Your task to perform on an android device: turn on sleep mode Image 0: 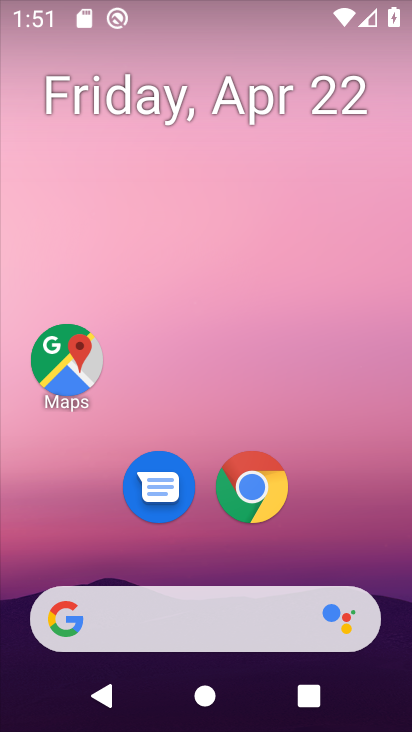
Step 0: drag from (204, 609) to (373, 0)
Your task to perform on an android device: turn on sleep mode Image 1: 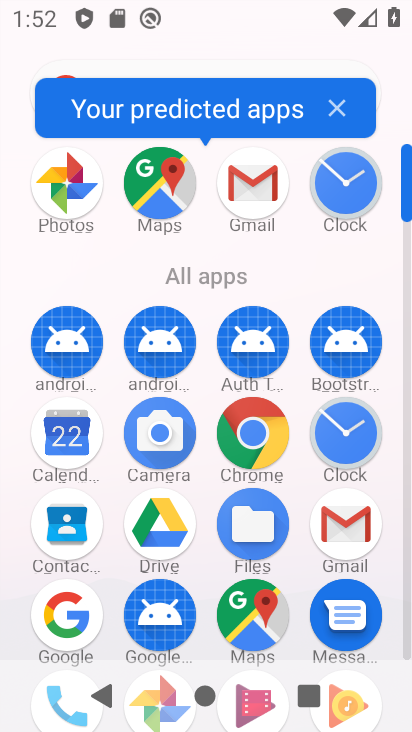
Step 1: drag from (190, 555) to (364, 151)
Your task to perform on an android device: turn on sleep mode Image 2: 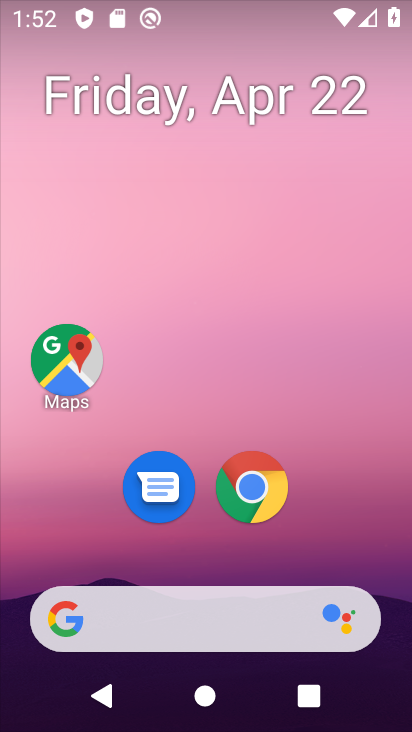
Step 2: drag from (216, 554) to (357, 47)
Your task to perform on an android device: turn on sleep mode Image 3: 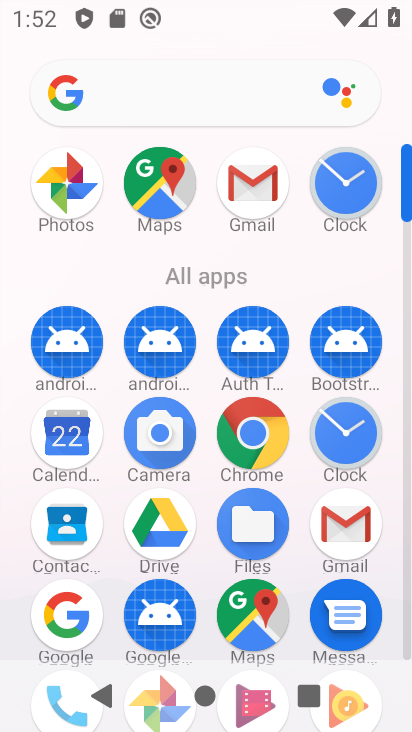
Step 3: drag from (113, 576) to (239, 215)
Your task to perform on an android device: turn on sleep mode Image 4: 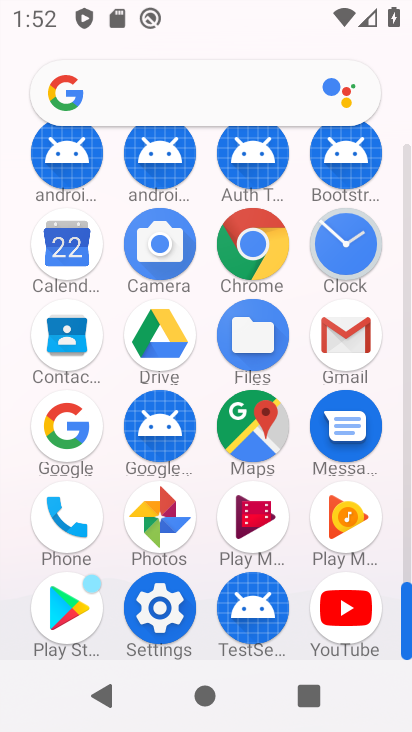
Step 4: click (153, 598)
Your task to perform on an android device: turn on sleep mode Image 5: 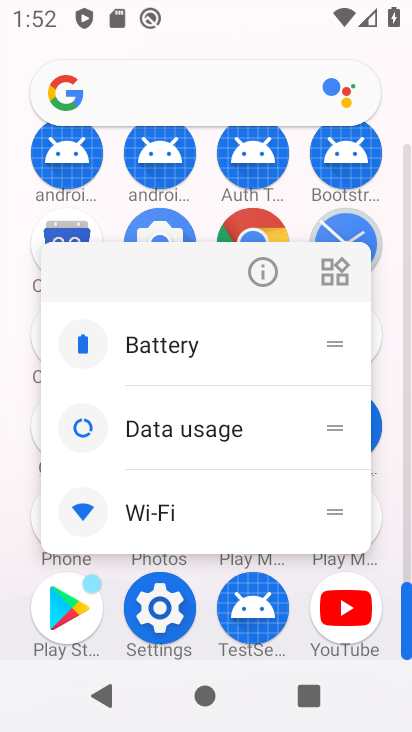
Step 5: click (158, 605)
Your task to perform on an android device: turn on sleep mode Image 6: 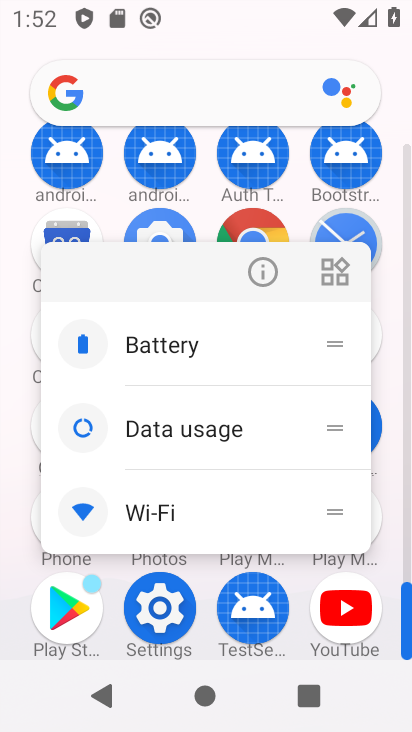
Step 6: click (158, 608)
Your task to perform on an android device: turn on sleep mode Image 7: 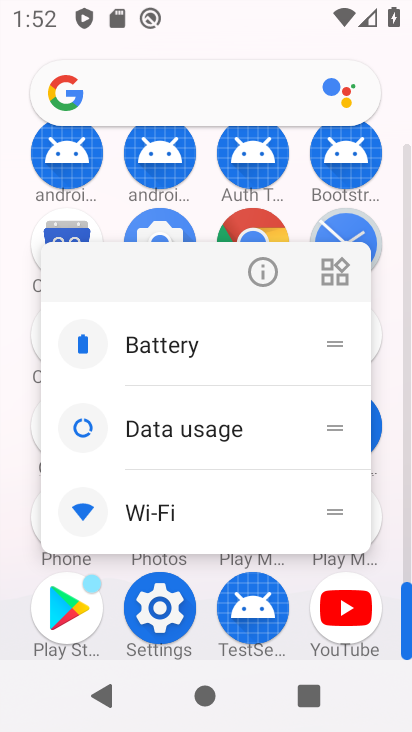
Step 7: click (161, 613)
Your task to perform on an android device: turn on sleep mode Image 8: 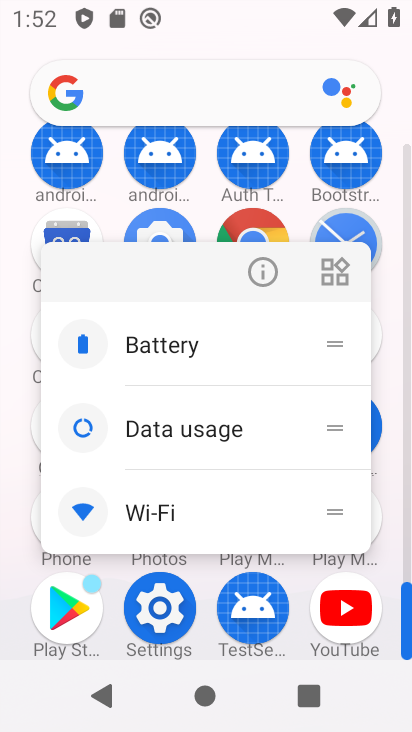
Step 8: click (170, 618)
Your task to perform on an android device: turn on sleep mode Image 9: 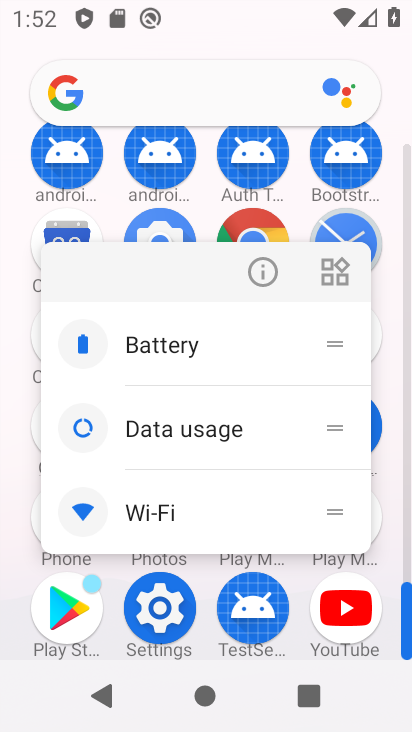
Step 9: click (154, 608)
Your task to perform on an android device: turn on sleep mode Image 10: 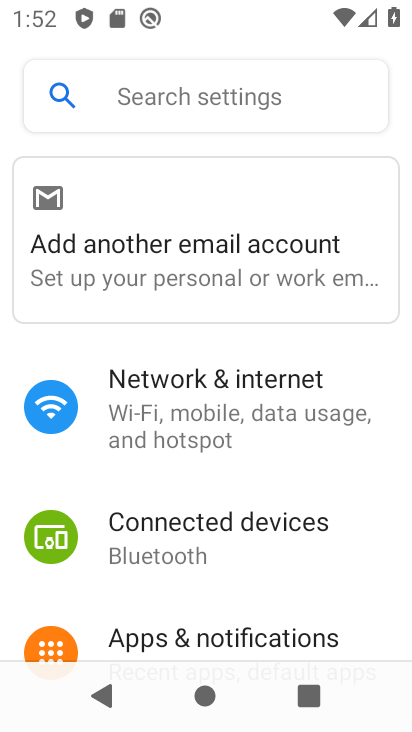
Step 10: drag from (162, 613) to (321, 219)
Your task to perform on an android device: turn on sleep mode Image 11: 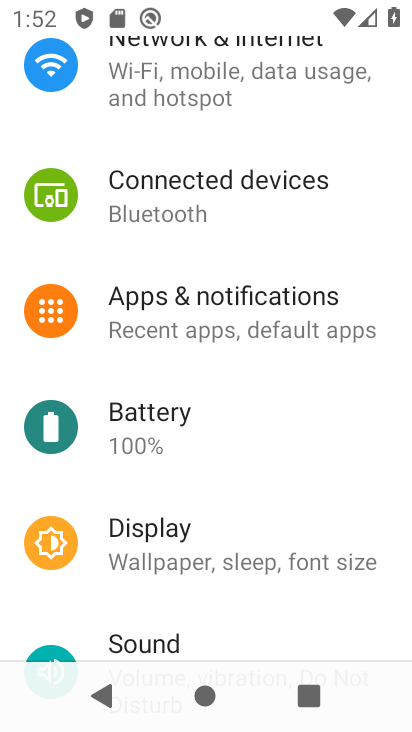
Step 11: drag from (239, 474) to (329, 258)
Your task to perform on an android device: turn on sleep mode Image 12: 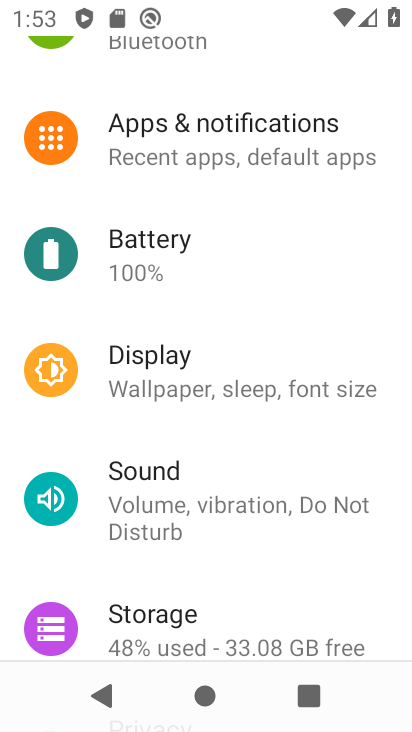
Step 12: click (242, 377)
Your task to perform on an android device: turn on sleep mode Image 13: 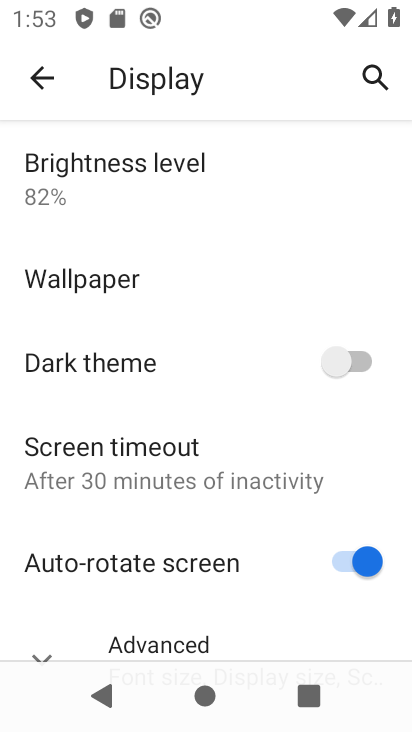
Step 13: task complete